Your task to perform on an android device: Open calendar and show me the second week of next month Image 0: 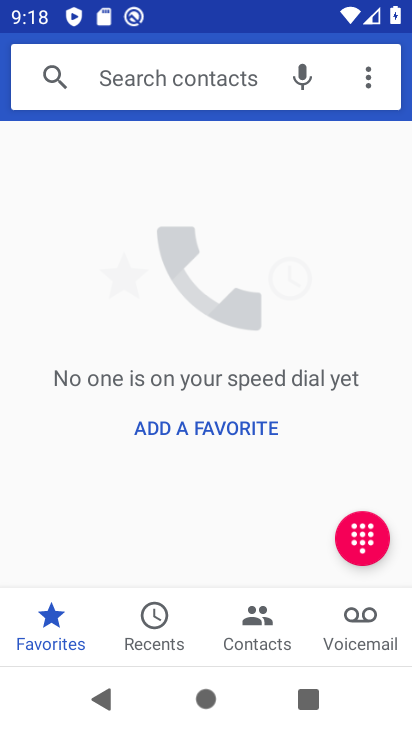
Step 0: press home button
Your task to perform on an android device: Open calendar and show me the second week of next month Image 1: 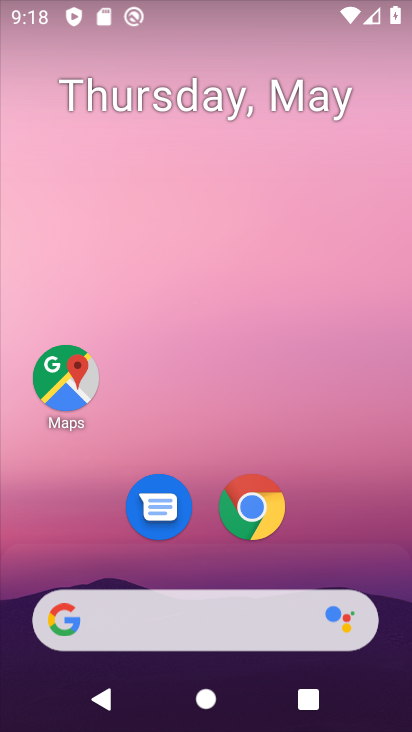
Step 1: drag from (391, 567) to (349, 86)
Your task to perform on an android device: Open calendar and show me the second week of next month Image 2: 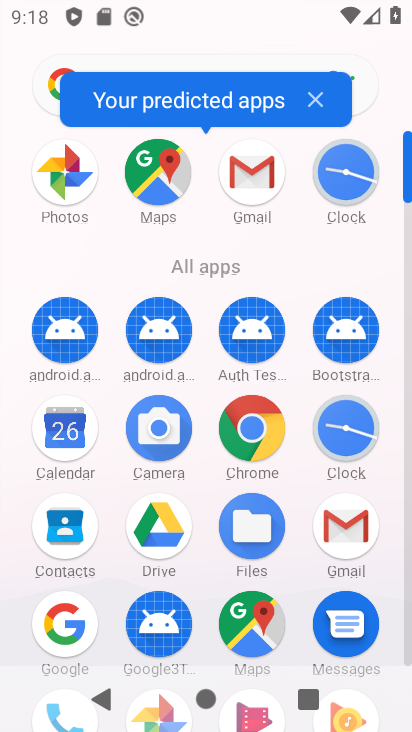
Step 2: click (66, 420)
Your task to perform on an android device: Open calendar and show me the second week of next month Image 3: 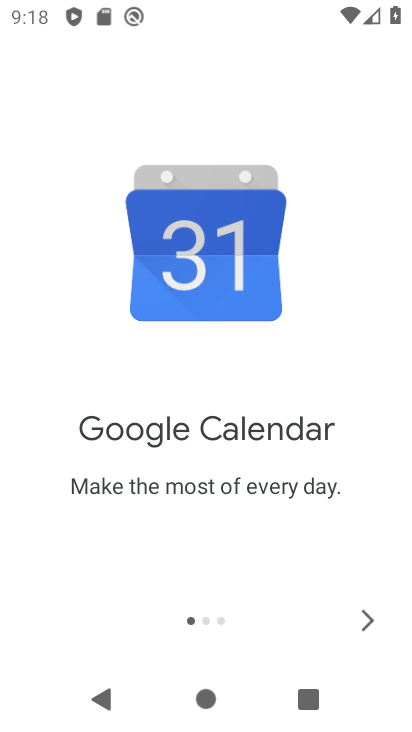
Step 3: click (378, 636)
Your task to perform on an android device: Open calendar and show me the second week of next month Image 4: 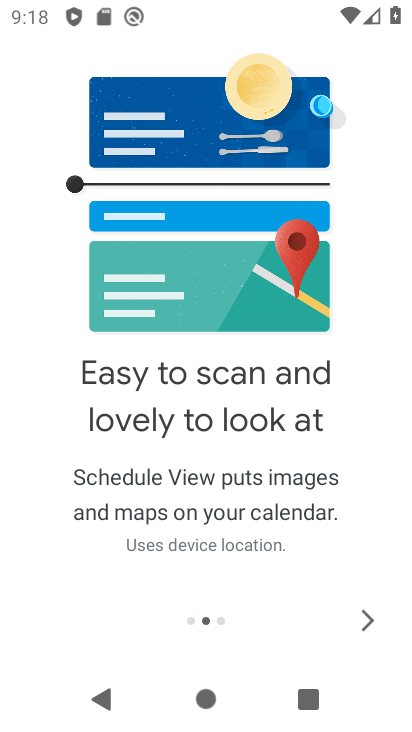
Step 4: click (376, 636)
Your task to perform on an android device: Open calendar and show me the second week of next month Image 5: 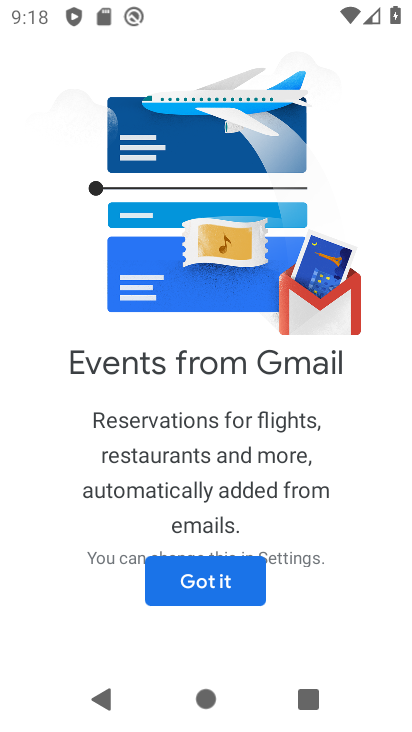
Step 5: click (235, 585)
Your task to perform on an android device: Open calendar and show me the second week of next month Image 6: 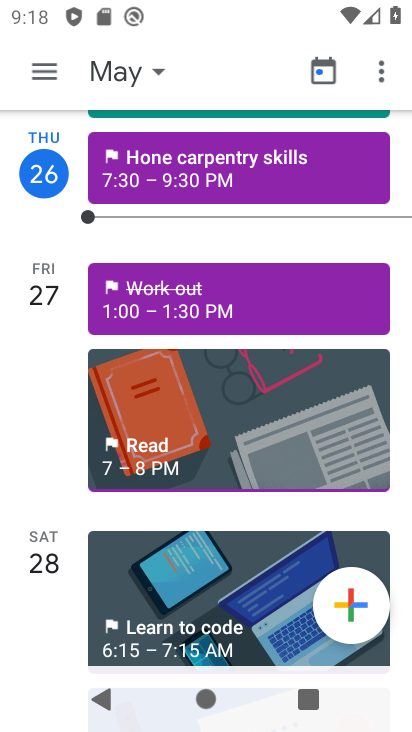
Step 6: click (38, 78)
Your task to perform on an android device: Open calendar and show me the second week of next month Image 7: 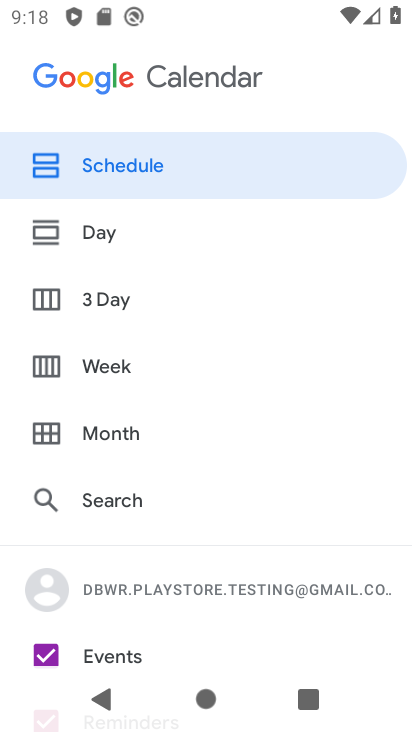
Step 7: click (127, 369)
Your task to perform on an android device: Open calendar and show me the second week of next month Image 8: 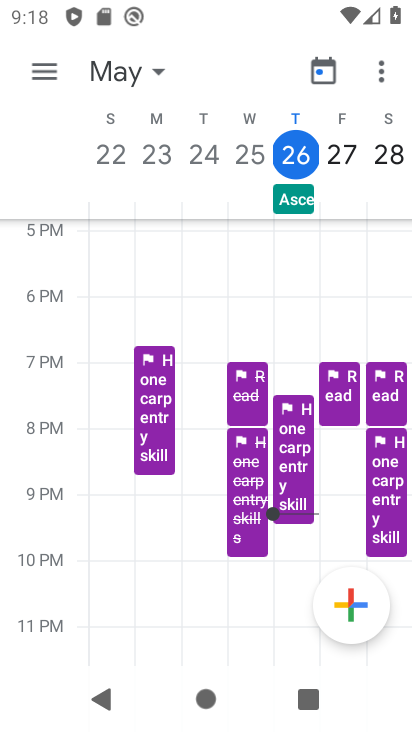
Step 8: click (145, 63)
Your task to perform on an android device: Open calendar and show me the second week of next month Image 9: 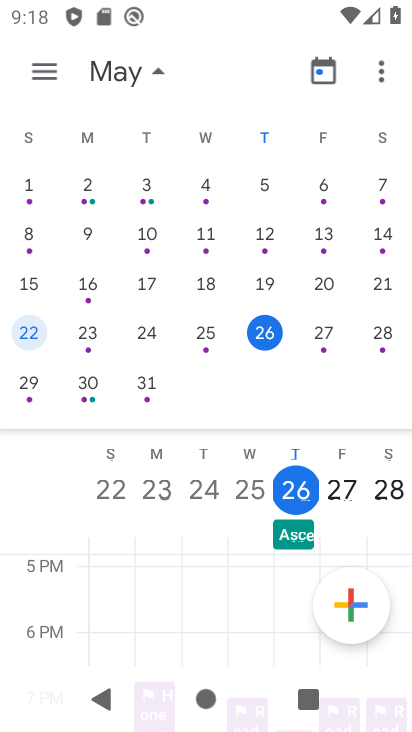
Step 9: drag from (388, 260) to (35, 232)
Your task to perform on an android device: Open calendar and show me the second week of next month Image 10: 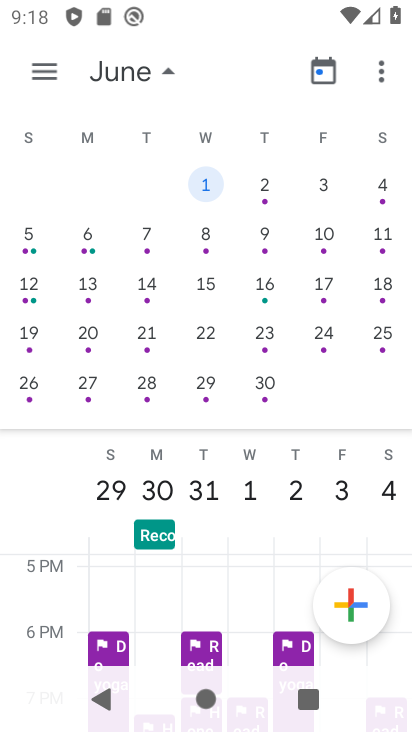
Step 10: click (203, 184)
Your task to perform on an android device: Open calendar and show me the second week of next month Image 11: 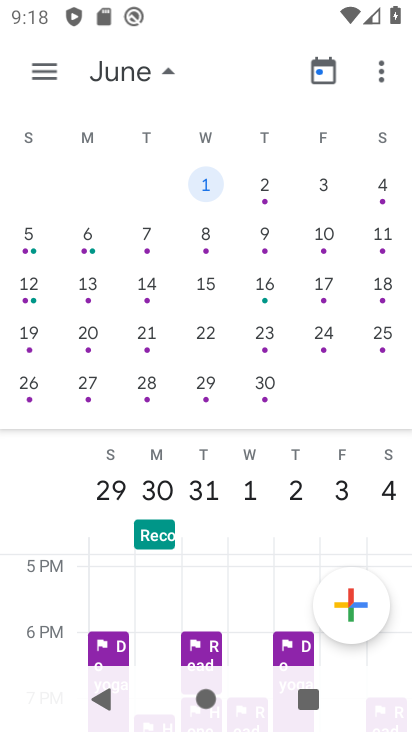
Step 11: click (213, 244)
Your task to perform on an android device: Open calendar and show me the second week of next month Image 12: 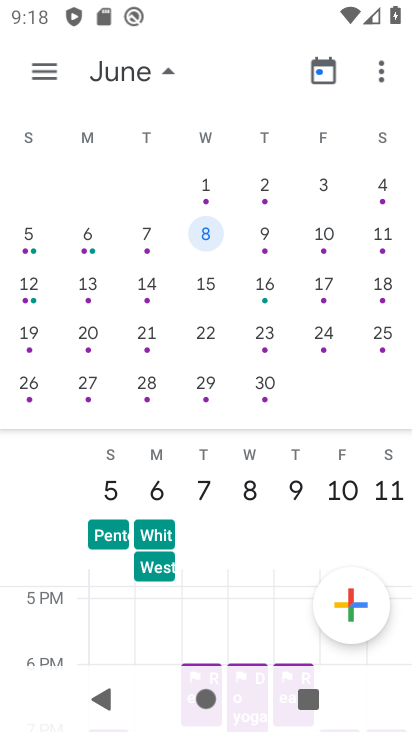
Step 12: click (153, 74)
Your task to perform on an android device: Open calendar and show me the second week of next month Image 13: 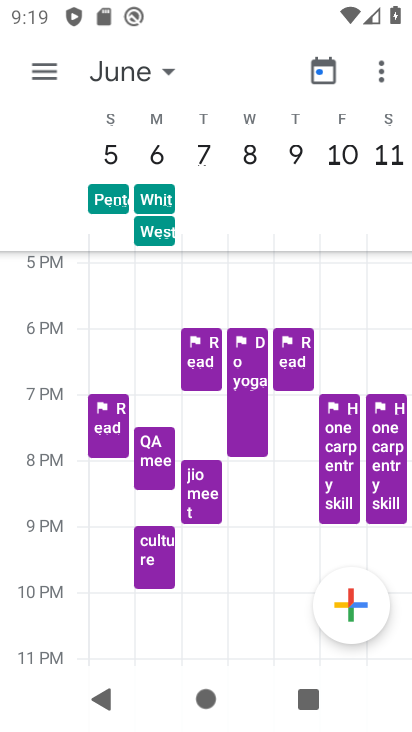
Step 13: task complete